Your task to perform on an android device: choose inbox layout in the gmail app Image 0: 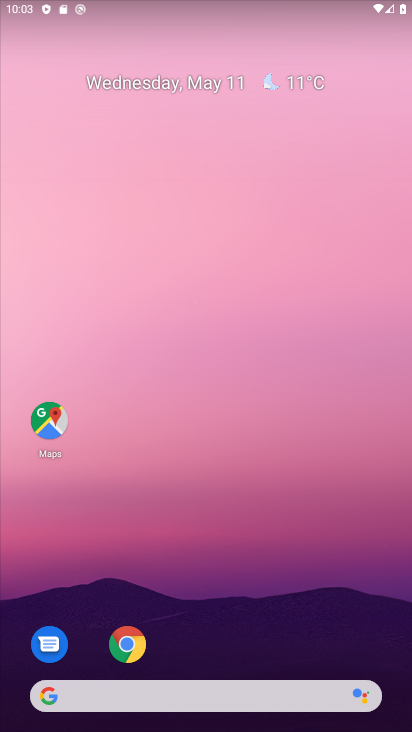
Step 0: press home button
Your task to perform on an android device: choose inbox layout in the gmail app Image 1: 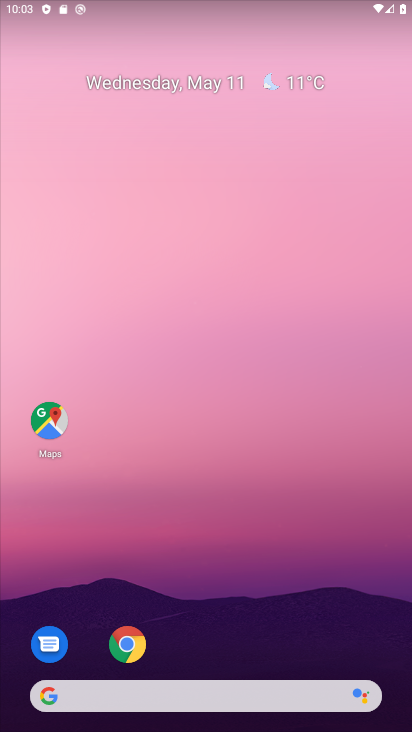
Step 1: drag from (288, 623) to (323, 5)
Your task to perform on an android device: choose inbox layout in the gmail app Image 2: 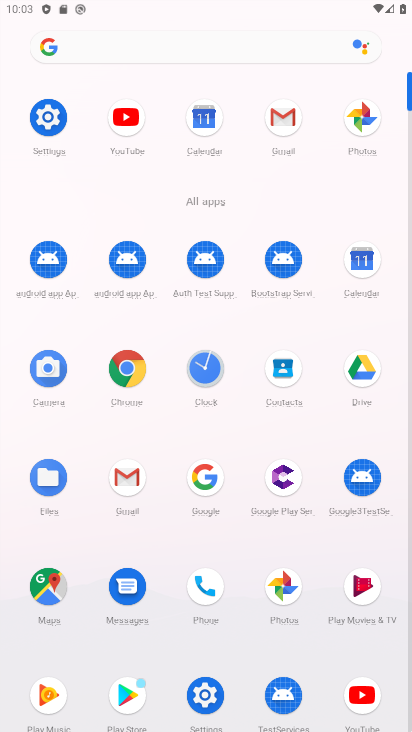
Step 2: click (279, 136)
Your task to perform on an android device: choose inbox layout in the gmail app Image 3: 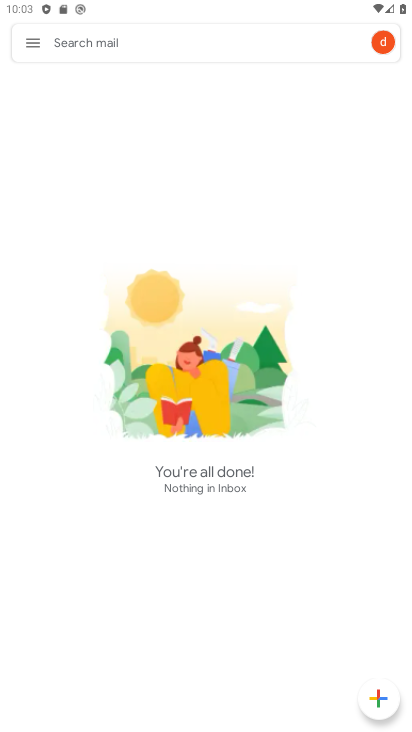
Step 3: click (34, 48)
Your task to perform on an android device: choose inbox layout in the gmail app Image 4: 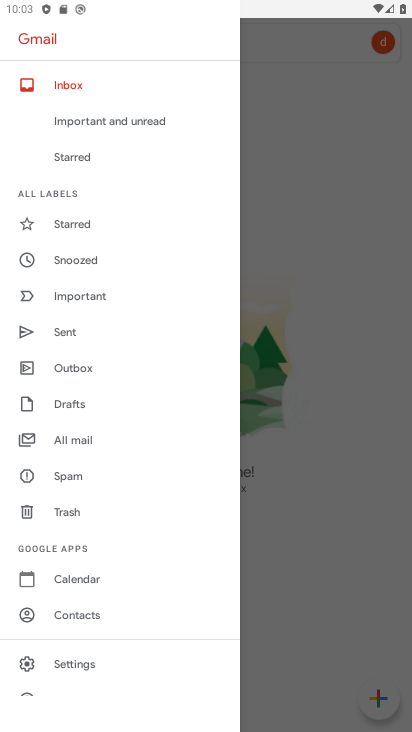
Step 4: click (83, 662)
Your task to perform on an android device: choose inbox layout in the gmail app Image 5: 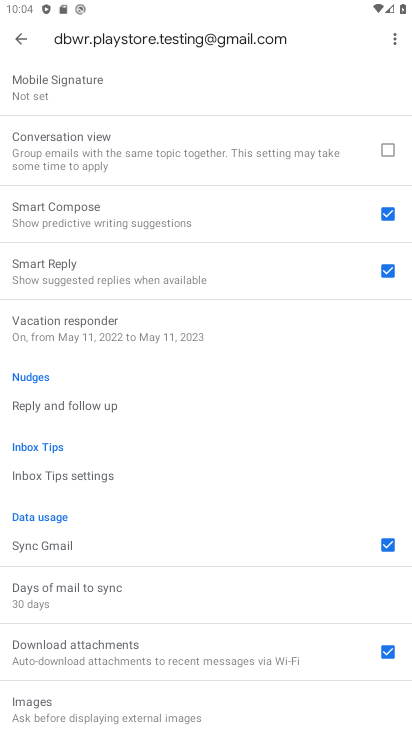
Step 5: drag from (75, 164) to (131, 681)
Your task to perform on an android device: choose inbox layout in the gmail app Image 6: 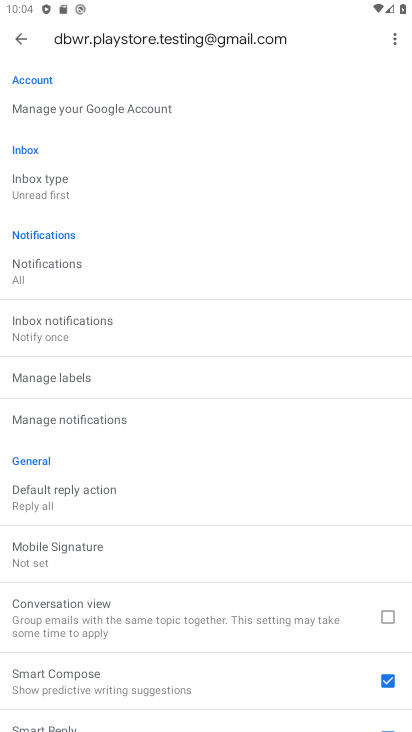
Step 6: click (39, 193)
Your task to perform on an android device: choose inbox layout in the gmail app Image 7: 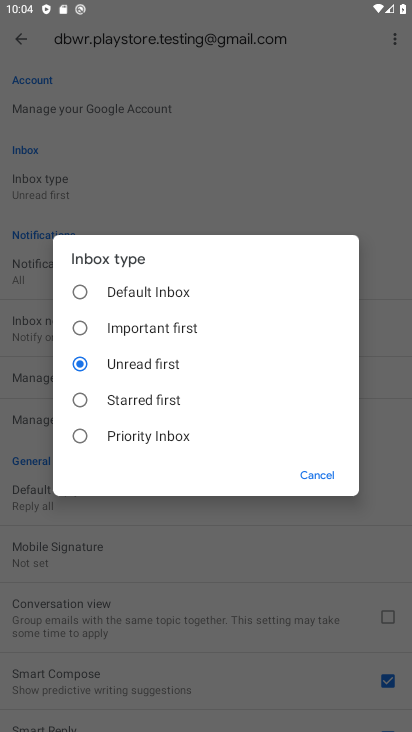
Step 7: click (80, 407)
Your task to perform on an android device: choose inbox layout in the gmail app Image 8: 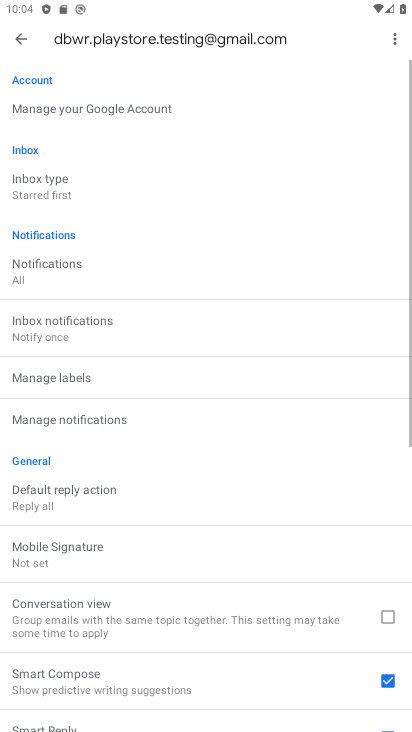
Step 8: task complete